Your task to perform on an android device: Show me the alarms in the clock app Image 0: 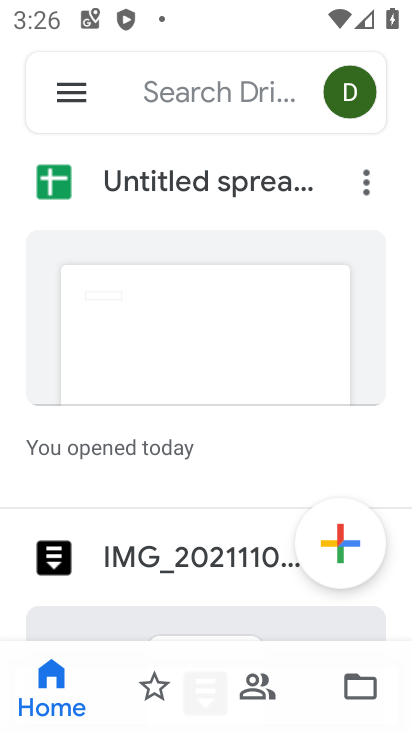
Step 0: press home button
Your task to perform on an android device: Show me the alarms in the clock app Image 1: 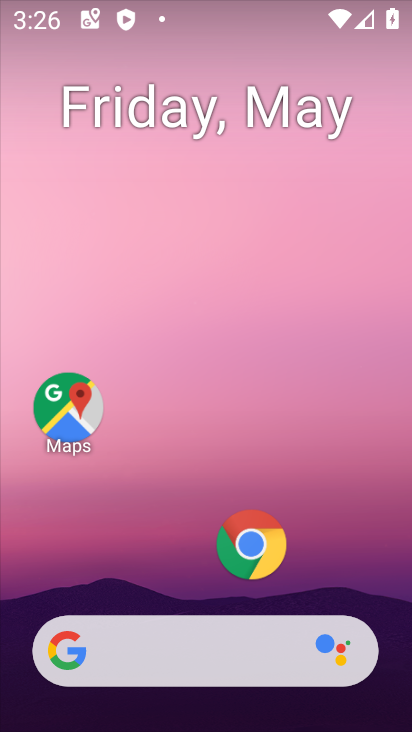
Step 1: drag from (195, 591) to (222, 336)
Your task to perform on an android device: Show me the alarms in the clock app Image 2: 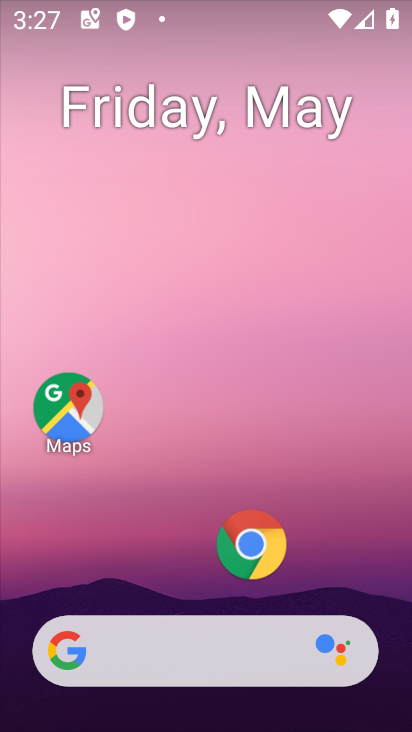
Step 2: drag from (206, 595) to (214, 87)
Your task to perform on an android device: Show me the alarms in the clock app Image 3: 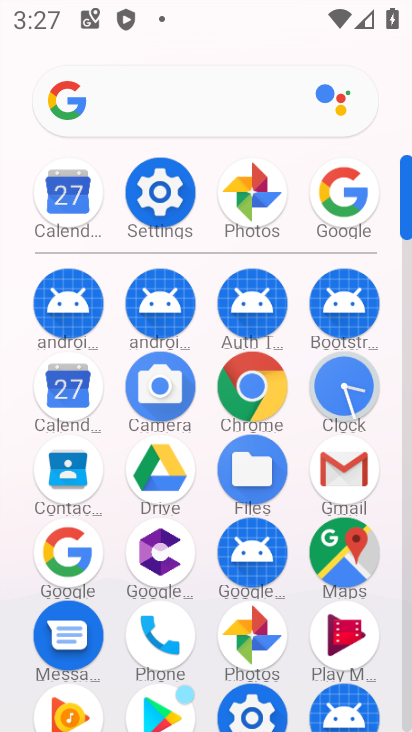
Step 3: click (340, 373)
Your task to perform on an android device: Show me the alarms in the clock app Image 4: 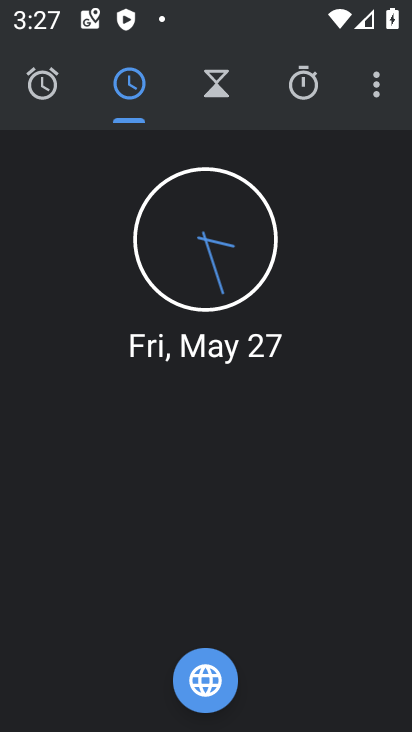
Step 4: click (50, 81)
Your task to perform on an android device: Show me the alarms in the clock app Image 5: 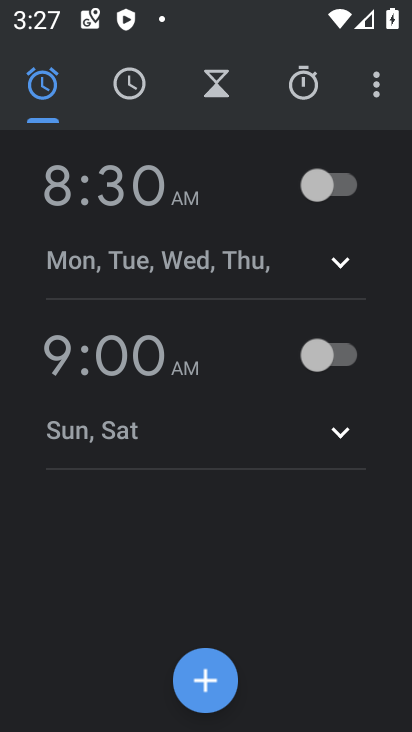
Step 5: task complete